Your task to perform on an android device: open a new tab in the chrome app Image 0: 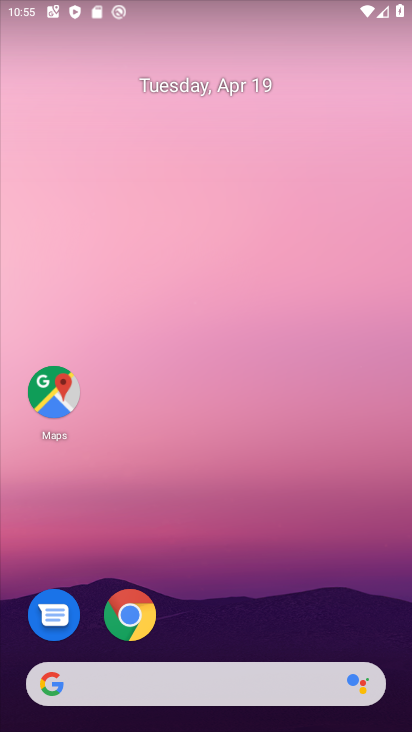
Step 0: click (134, 615)
Your task to perform on an android device: open a new tab in the chrome app Image 1: 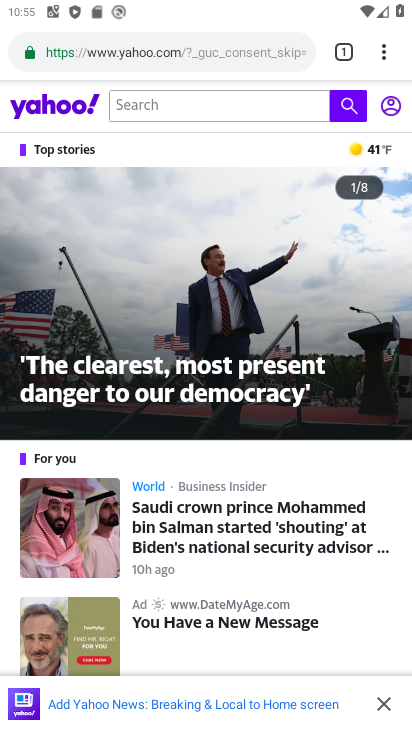
Step 1: click (343, 49)
Your task to perform on an android device: open a new tab in the chrome app Image 2: 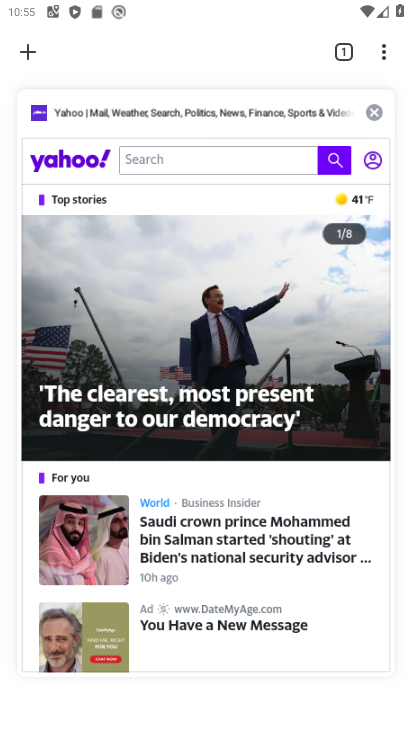
Step 2: click (25, 53)
Your task to perform on an android device: open a new tab in the chrome app Image 3: 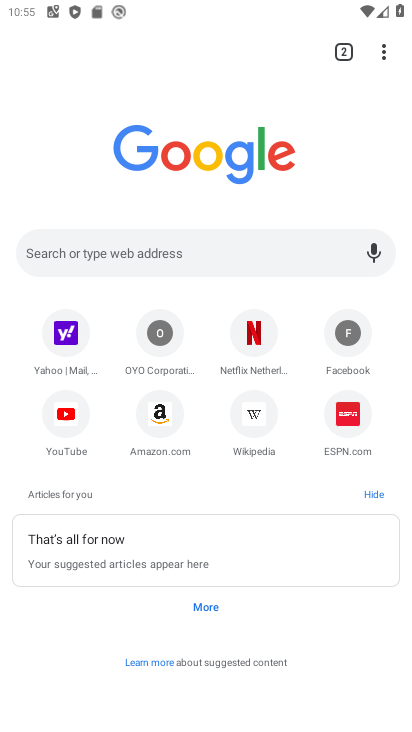
Step 3: task complete